Your task to perform on an android device: uninstall "Life360: Find Family & Friends" Image 0: 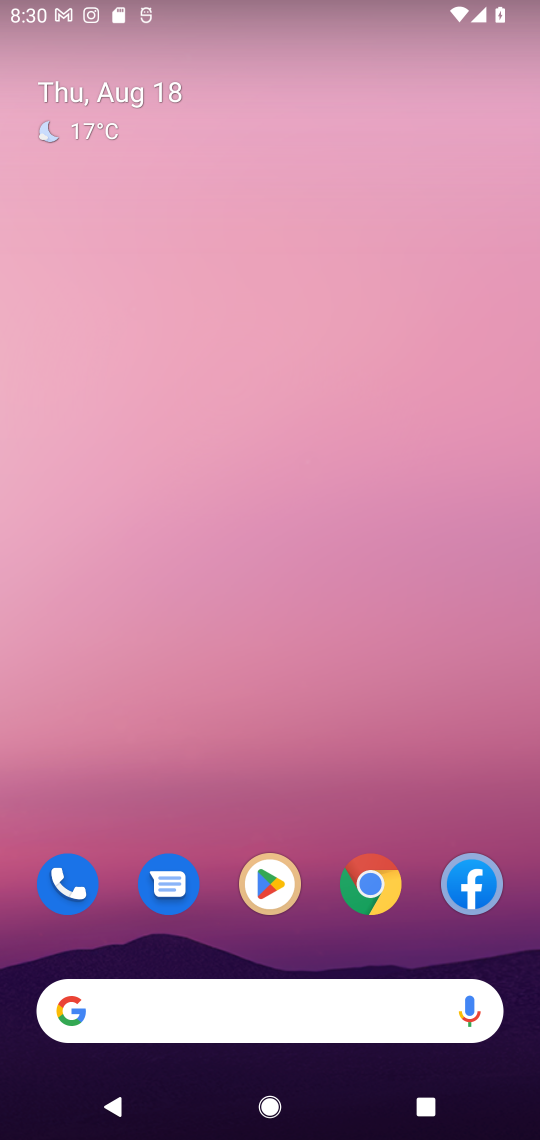
Step 0: drag from (284, 1011) to (214, 85)
Your task to perform on an android device: uninstall "Life360: Find Family & Friends" Image 1: 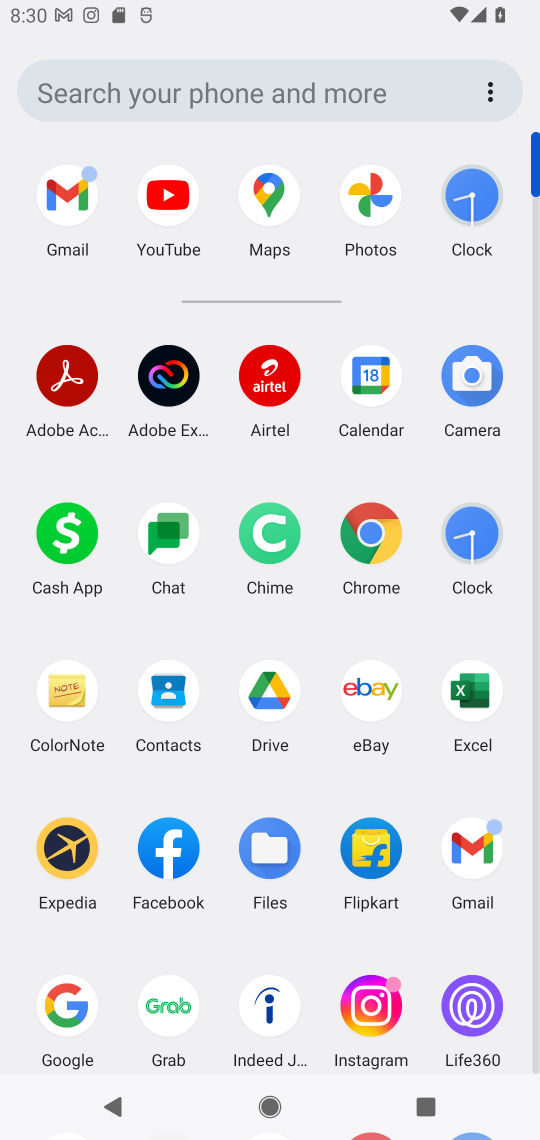
Step 1: drag from (318, 945) to (242, 225)
Your task to perform on an android device: uninstall "Life360: Find Family & Friends" Image 2: 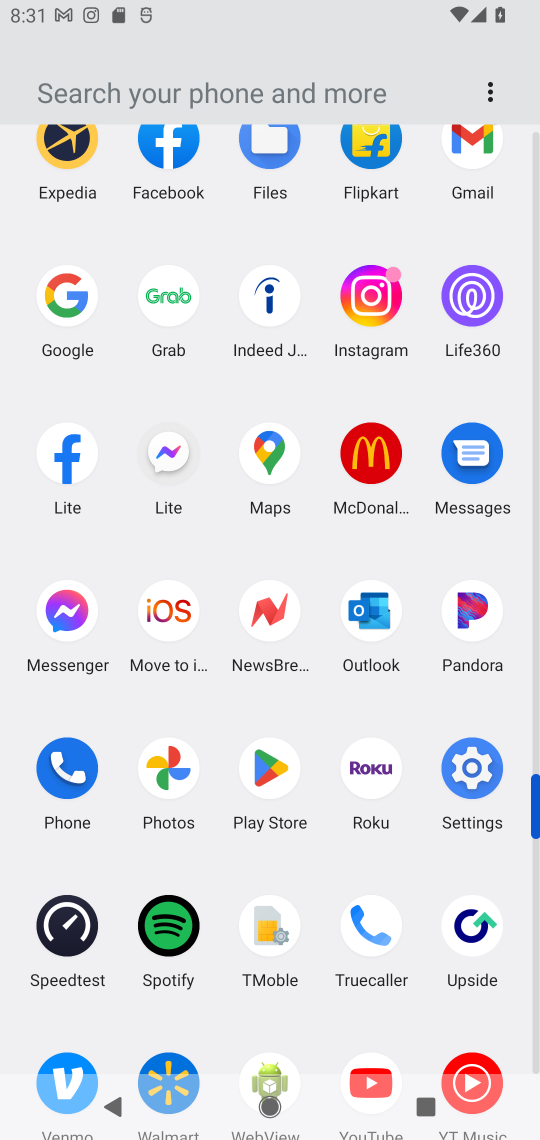
Step 2: click (269, 764)
Your task to perform on an android device: uninstall "Life360: Find Family & Friends" Image 3: 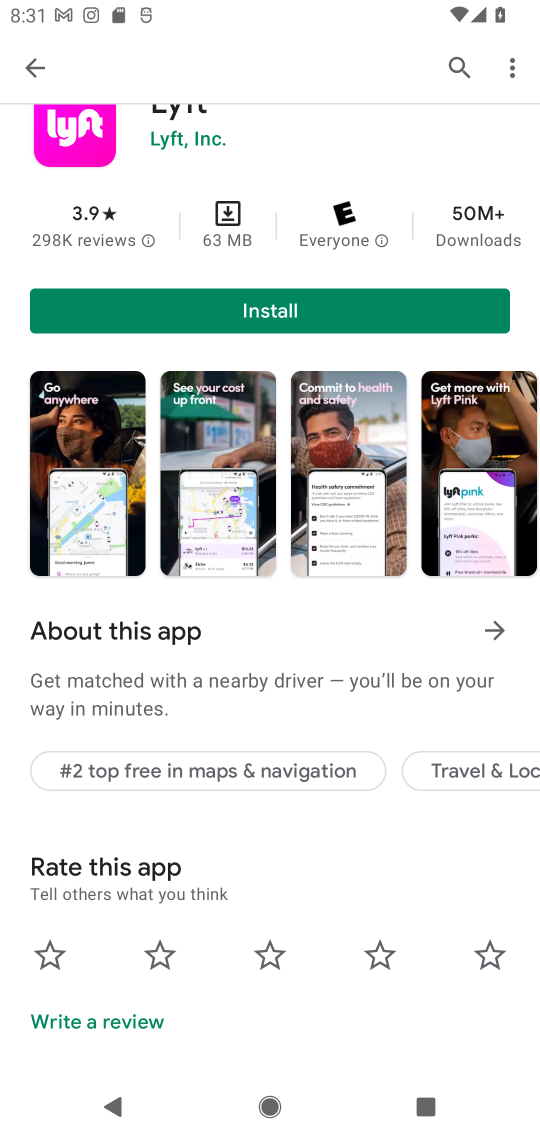
Step 3: press back button
Your task to perform on an android device: uninstall "Life360: Find Family & Friends" Image 4: 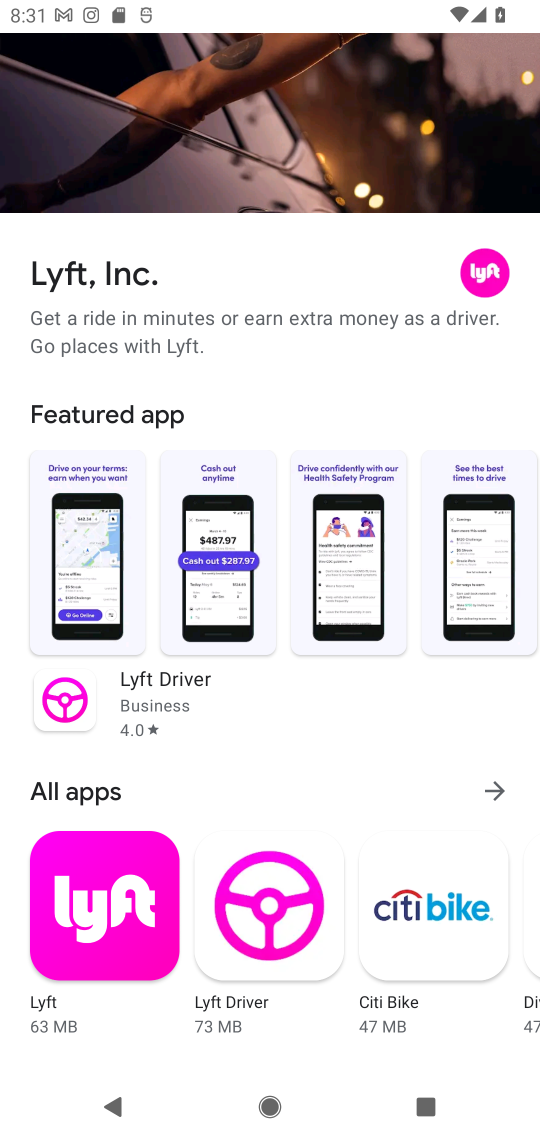
Step 4: press back button
Your task to perform on an android device: uninstall "Life360: Find Family & Friends" Image 5: 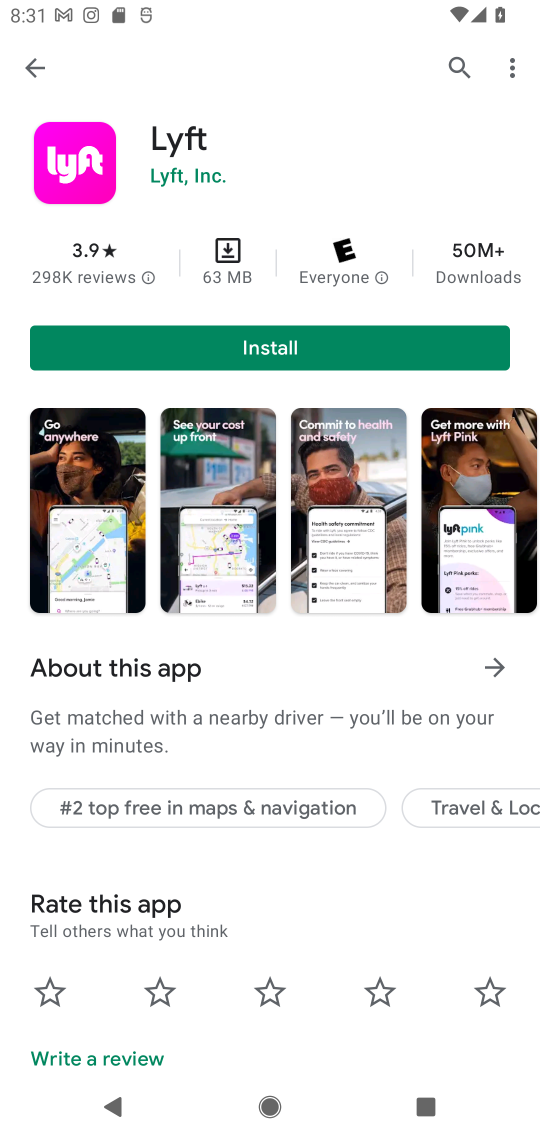
Step 5: press back button
Your task to perform on an android device: uninstall "Life360: Find Family & Friends" Image 6: 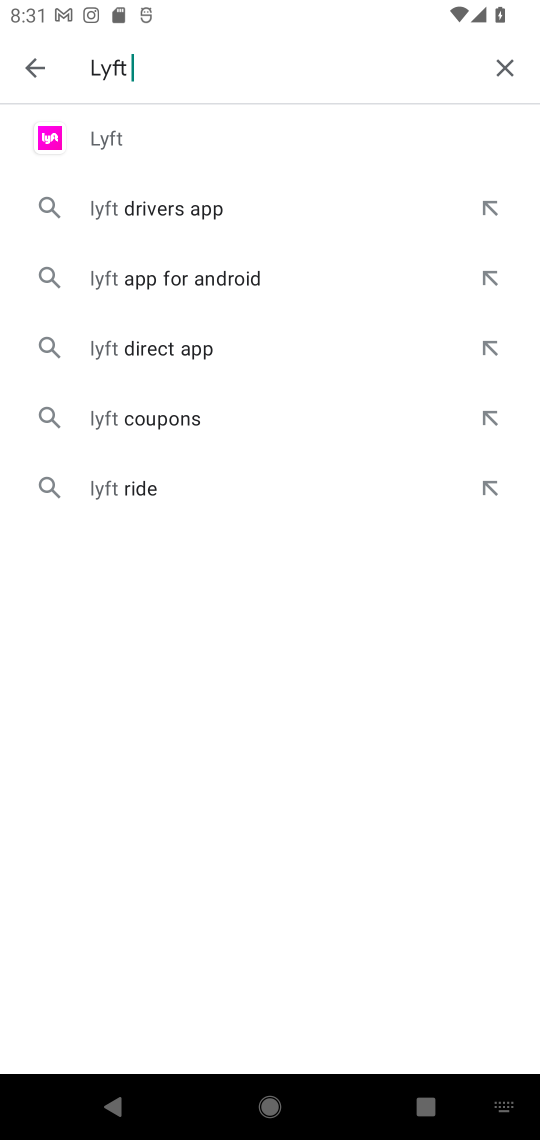
Step 6: press back button
Your task to perform on an android device: uninstall "Life360: Find Family & Friends" Image 7: 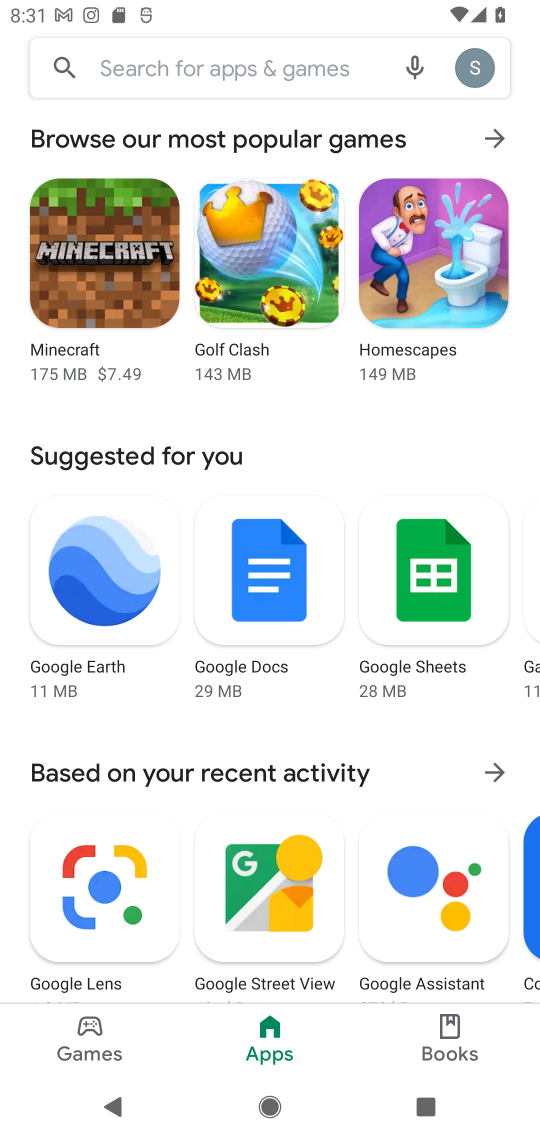
Step 7: click (281, 66)
Your task to perform on an android device: uninstall "Life360: Find Family & Friends" Image 8: 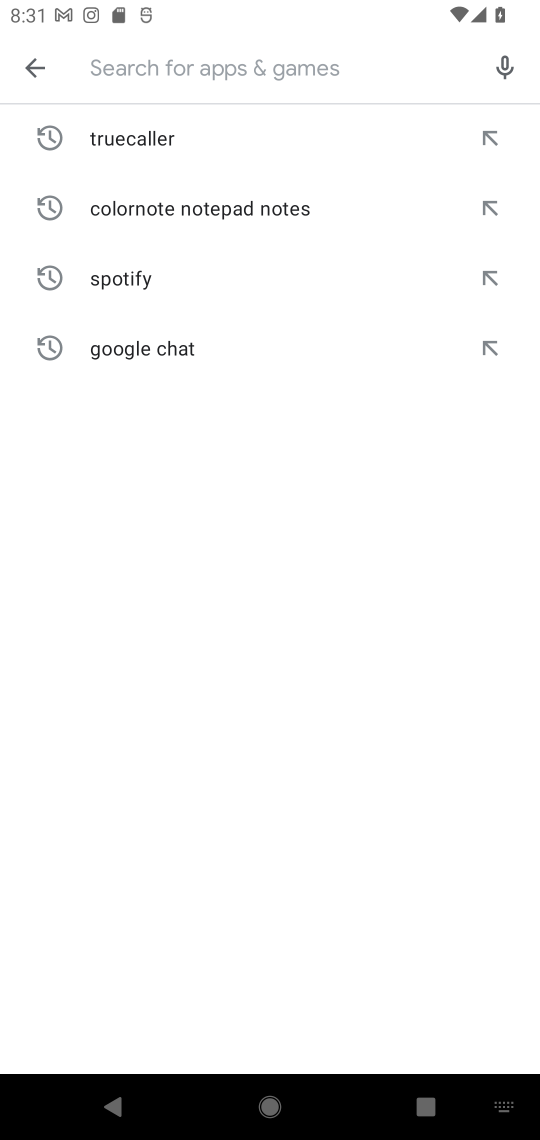
Step 8: type "Life360: Find Family & Friends"
Your task to perform on an android device: uninstall "Life360: Find Family & Friends" Image 9: 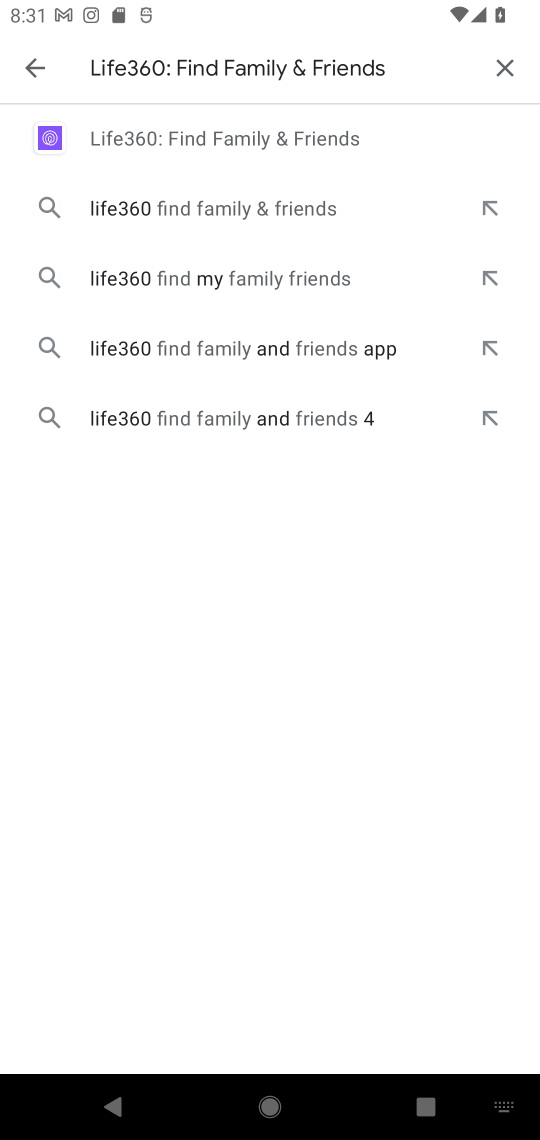
Step 9: click (214, 143)
Your task to perform on an android device: uninstall "Life360: Find Family & Friends" Image 10: 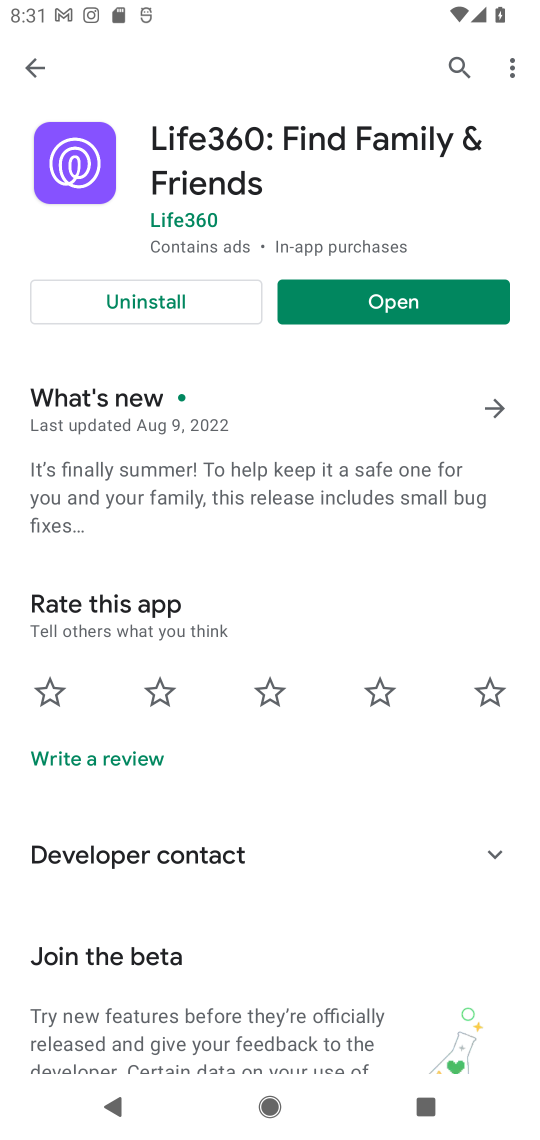
Step 10: click (159, 307)
Your task to perform on an android device: uninstall "Life360: Find Family & Friends" Image 11: 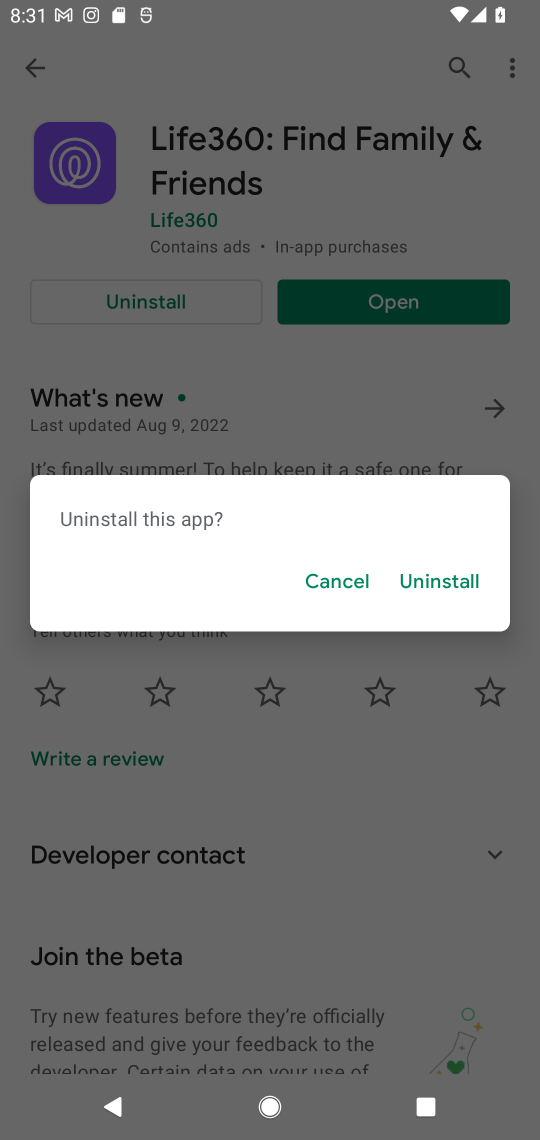
Step 11: click (452, 584)
Your task to perform on an android device: uninstall "Life360: Find Family & Friends" Image 12: 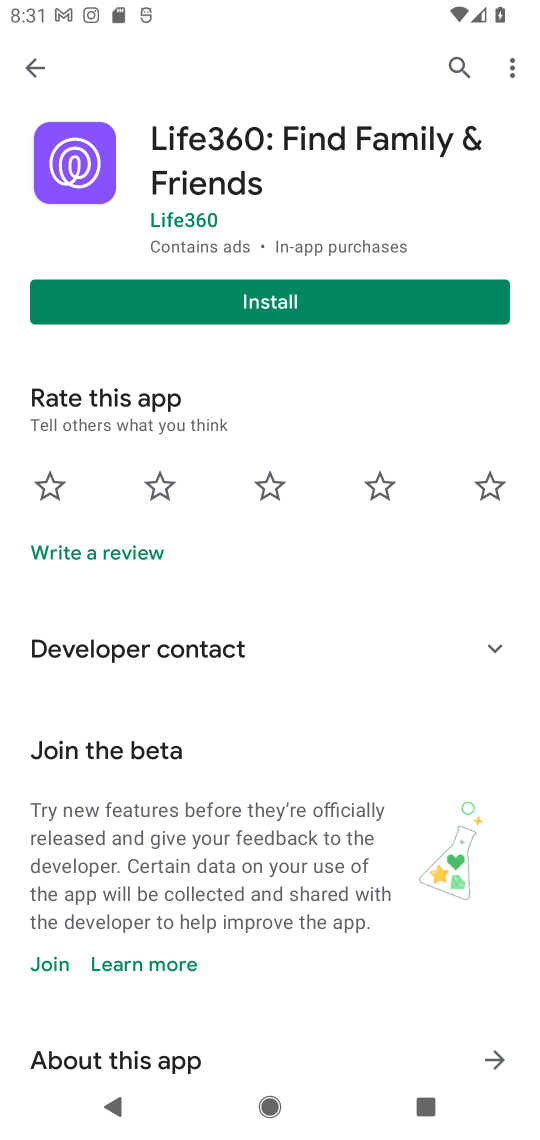
Step 12: task complete